Your task to perform on an android device: open app "Messages" (install if not already installed) Image 0: 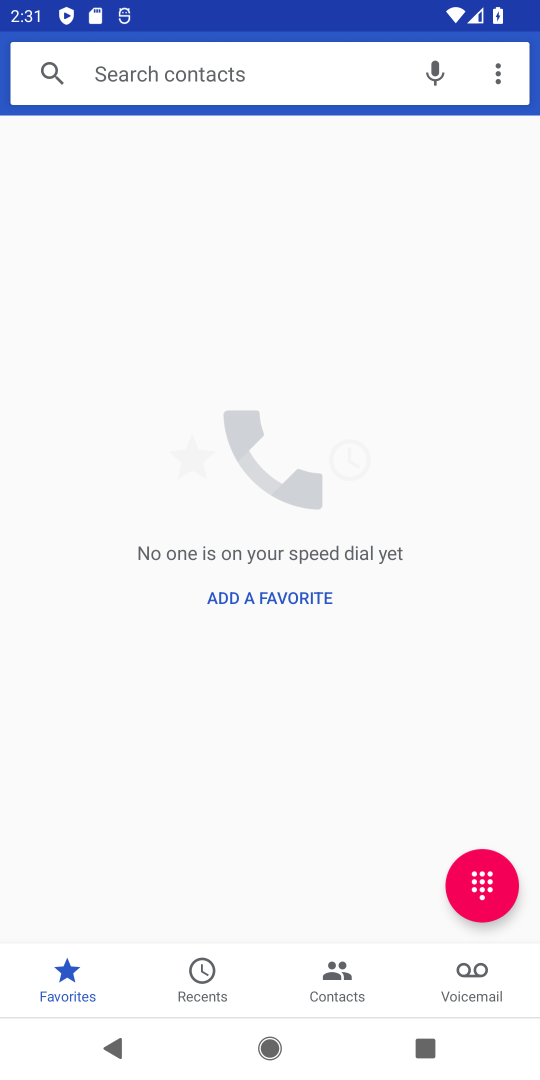
Step 0: press home button
Your task to perform on an android device: open app "Messages" (install if not already installed) Image 1: 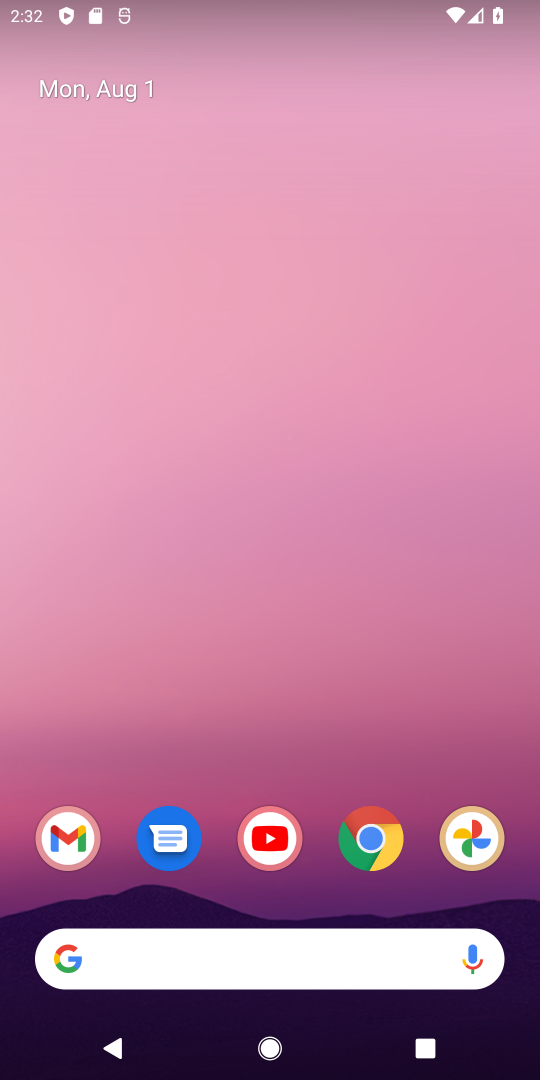
Step 1: click (163, 849)
Your task to perform on an android device: open app "Messages" (install if not already installed) Image 2: 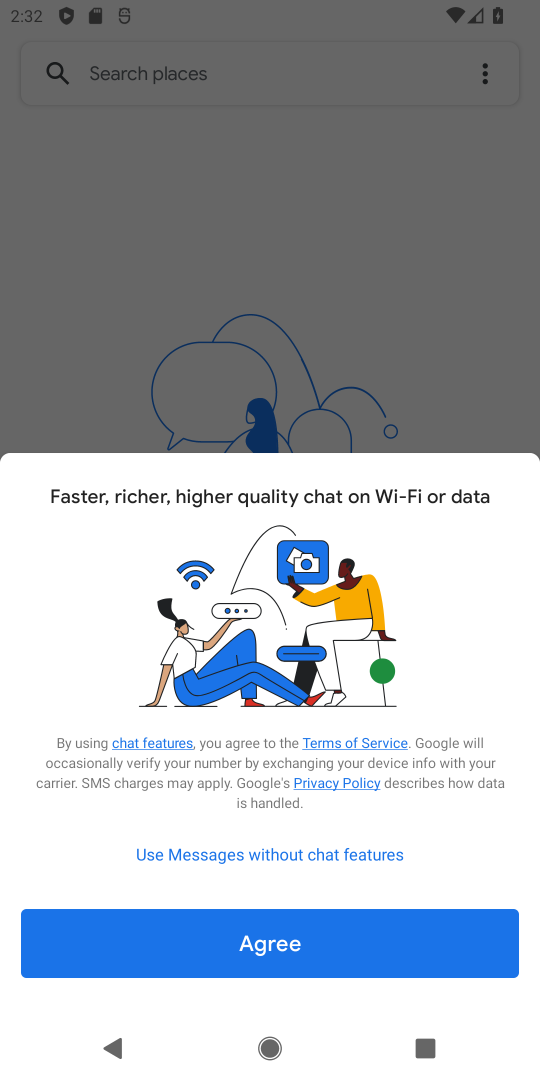
Step 2: click (258, 941)
Your task to perform on an android device: open app "Messages" (install if not already installed) Image 3: 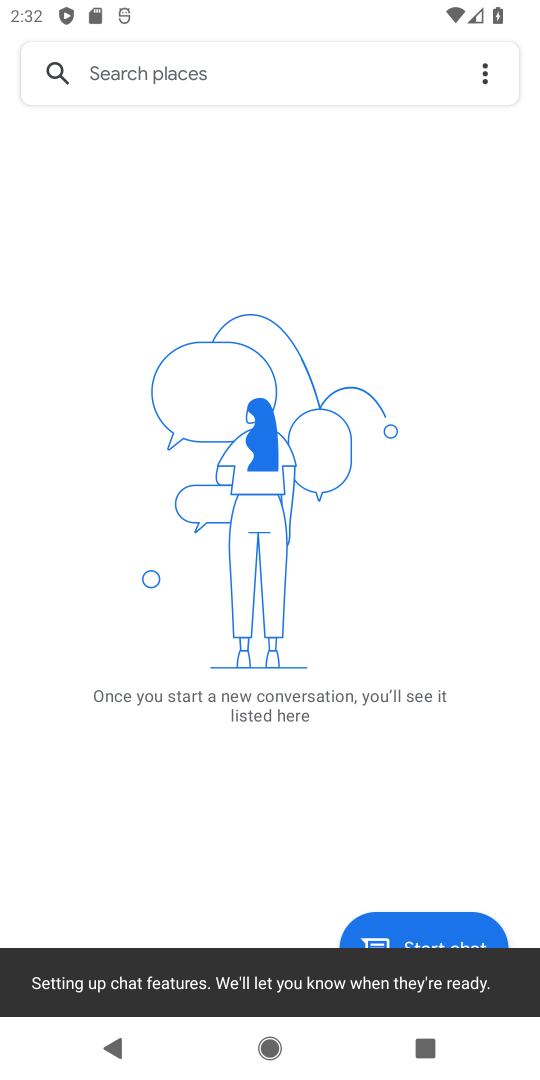
Step 3: task complete